Your task to perform on an android device: move a message to another label in the gmail app Image 0: 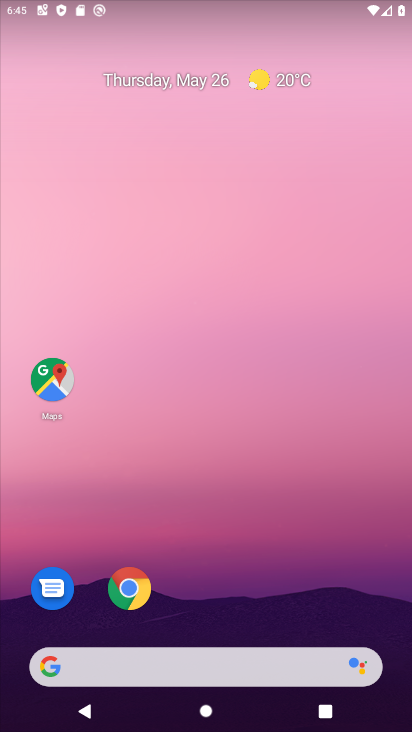
Step 0: drag from (343, 599) to (271, 104)
Your task to perform on an android device: move a message to another label in the gmail app Image 1: 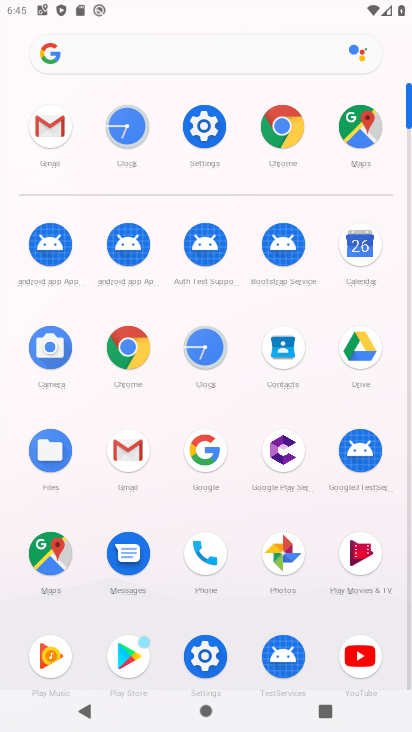
Step 1: click (44, 119)
Your task to perform on an android device: move a message to another label in the gmail app Image 2: 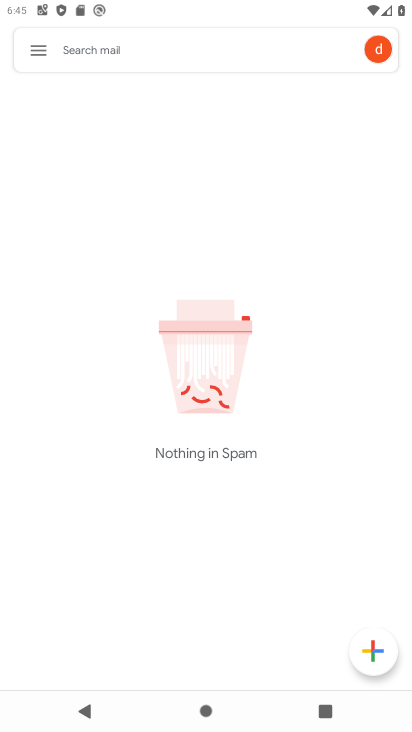
Step 2: click (52, 45)
Your task to perform on an android device: move a message to another label in the gmail app Image 3: 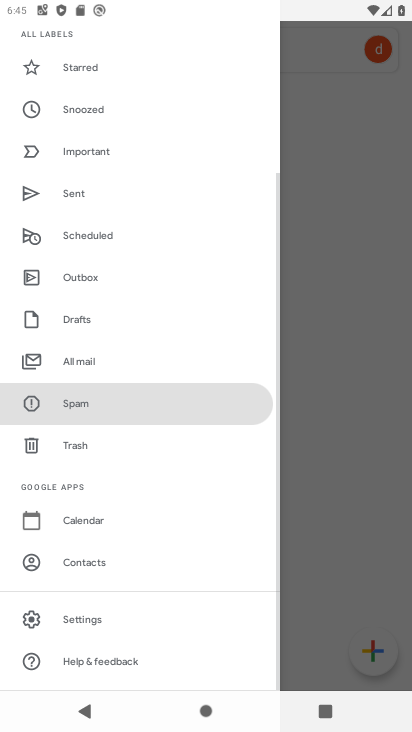
Step 3: drag from (69, 55) to (120, 653)
Your task to perform on an android device: move a message to another label in the gmail app Image 4: 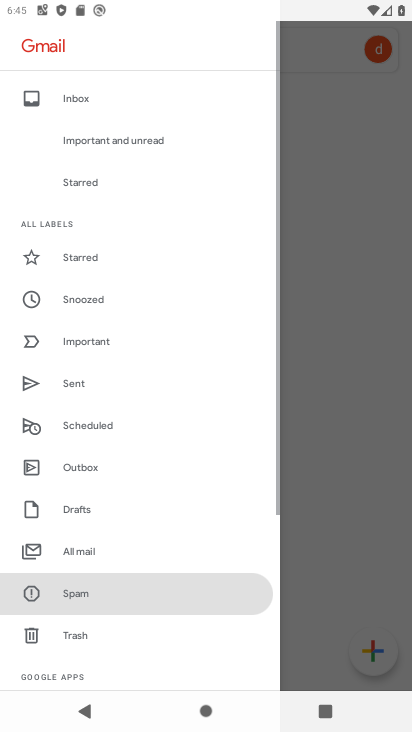
Step 4: click (104, 105)
Your task to perform on an android device: move a message to another label in the gmail app Image 5: 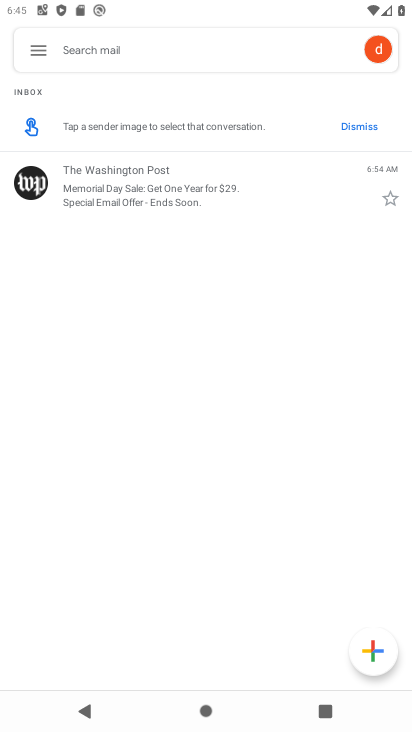
Step 5: click (174, 196)
Your task to perform on an android device: move a message to another label in the gmail app Image 6: 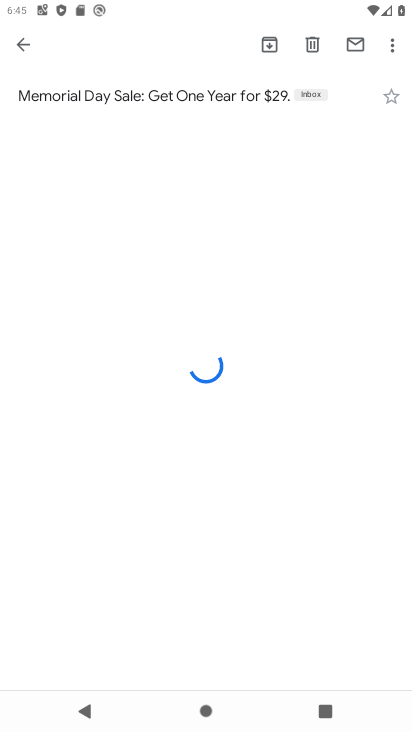
Step 6: click (391, 35)
Your task to perform on an android device: move a message to another label in the gmail app Image 7: 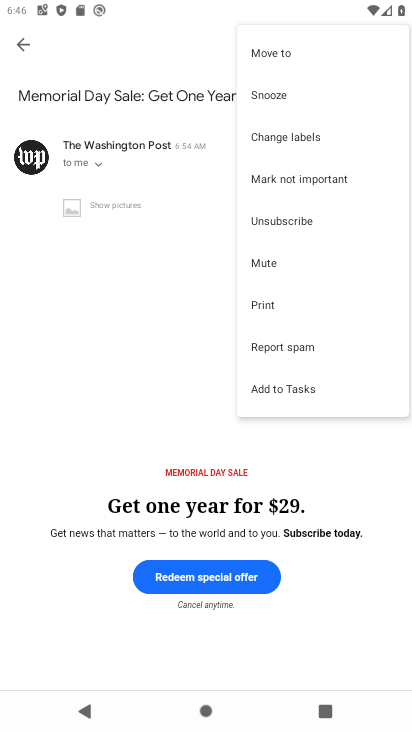
Step 7: click (301, 134)
Your task to perform on an android device: move a message to another label in the gmail app Image 8: 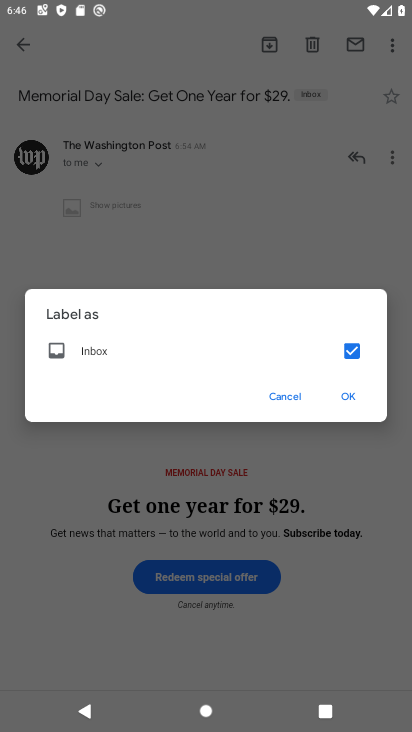
Step 8: click (355, 407)
Your task to perform on an android device: move a message to another label in the gmail app Image 9: 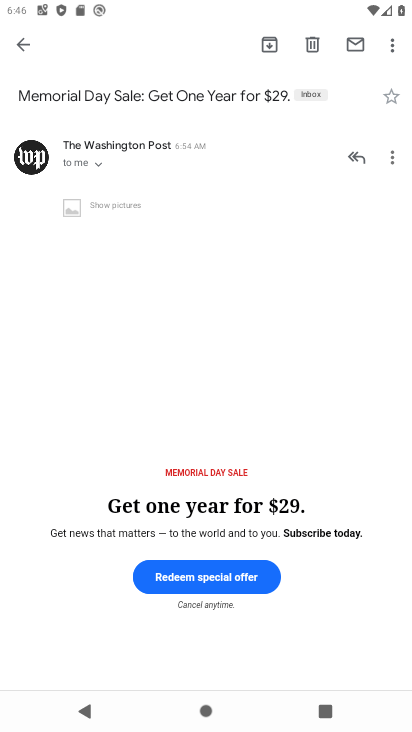
Step 9: task complete